Your task to perform on an android device: Open Yahoo.com Image 0: 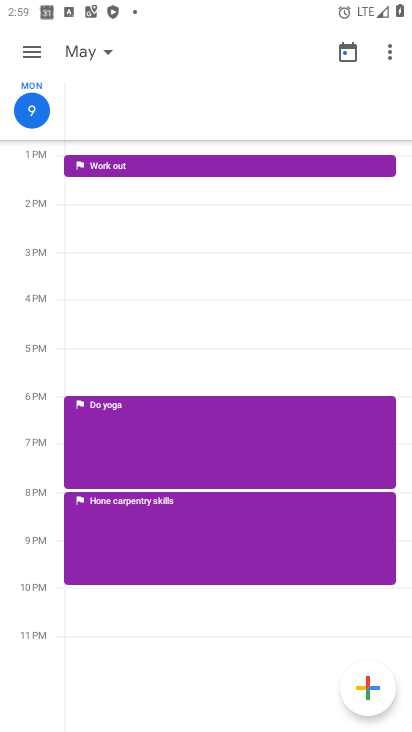
Step 0: press home button
Your task to perform on an android device: Open Yahoo.com Image 1: 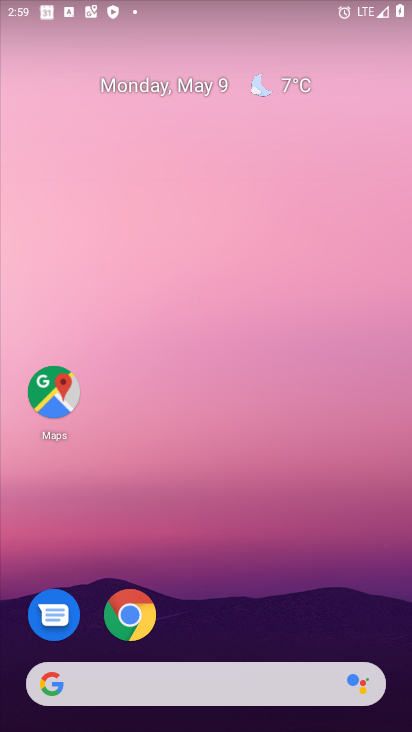
Step 1: click (130, 614)
Your task to perform on an android device: Open Yahoo.com Image 2: 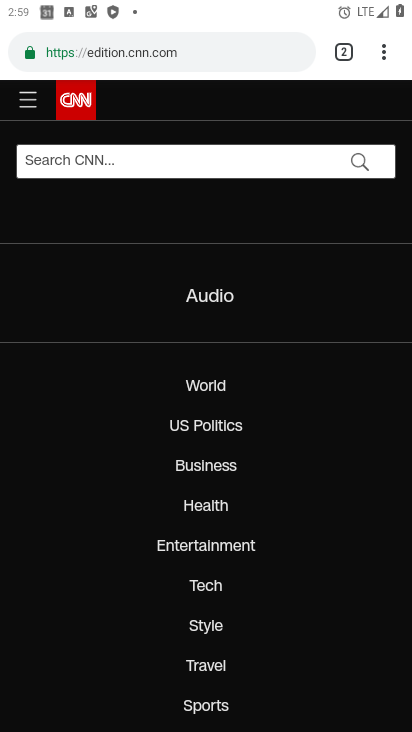
Step 2: click (187, 52)
Your task to perform on an android device: Open Yahoo.com Image 3: 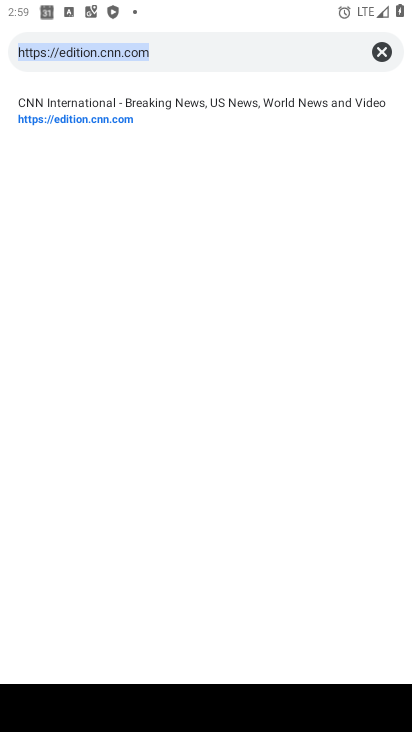
Step 3: click (380, 51)
Your task to perform on an android device: Open Yahoo.com Image 4: 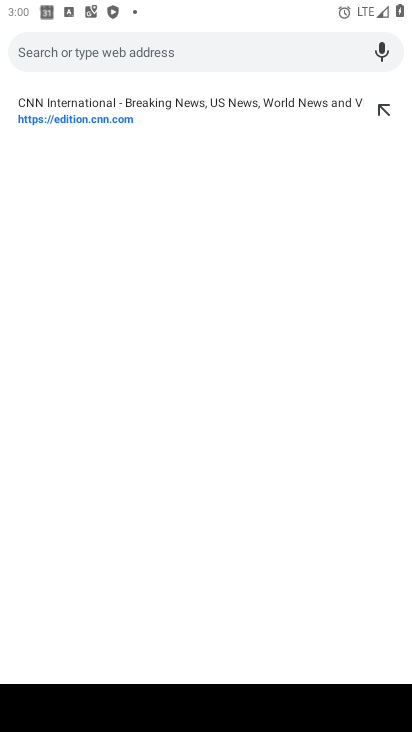
Step 4: type "yahoo.com"
Your task to perform on an android device: Open Yahoo.com Image 5: 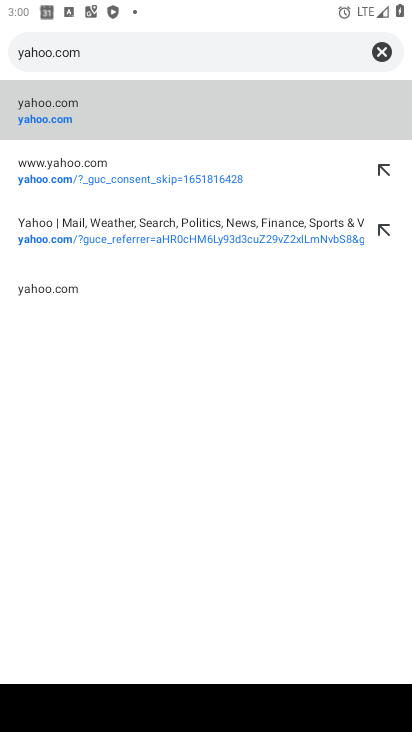
Step 5: click (40, 99)
Your task to perform on an android device: Open Yahoo.com Image 6: 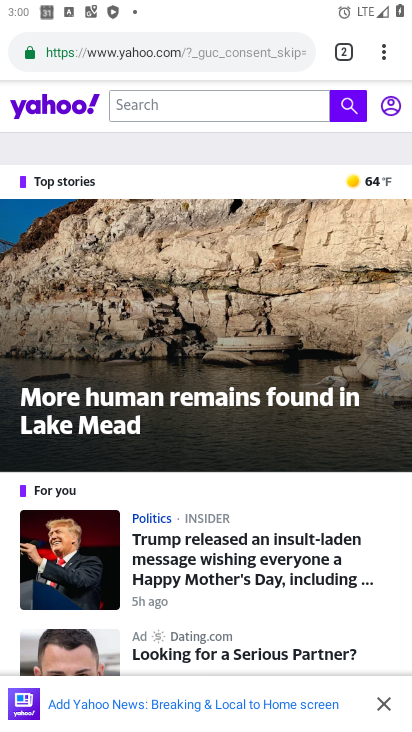
Step 6: task complete